Your task to perform on an android device: Set the phone to "Do not disturb". Image 0: 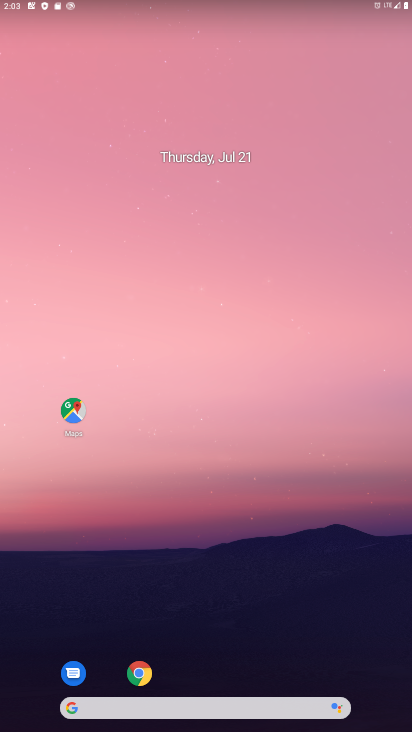
Step 0: drag from (165, 248) to (165, 348)
Your task to perform on an android device: Set the phone to "Do not disturb". Image 1: 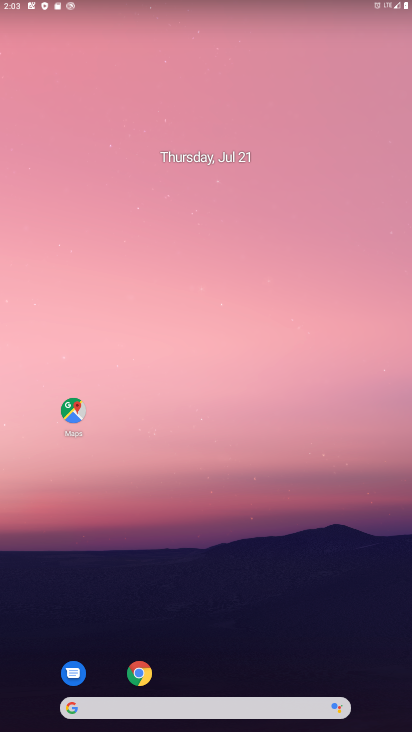
Step 1: drag from (156, 4) to (166, 447)
Your task to perform on an android device: Set the phone to "Do not disturb". Image 2: 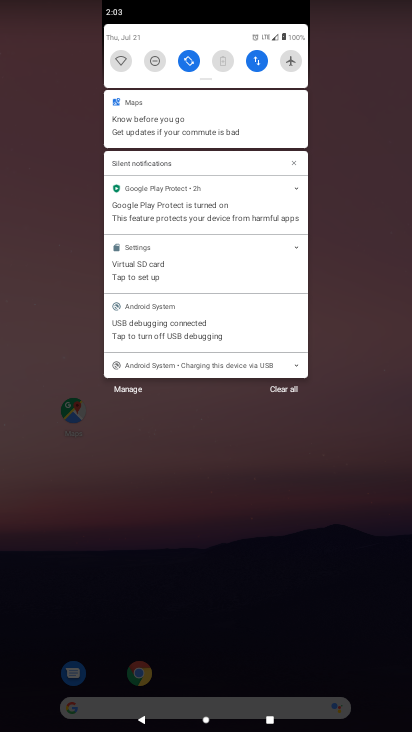
Step 2: click (153, 58)
Your task to perform on an android device: Set the phone to "Do not disturb". Image 3: 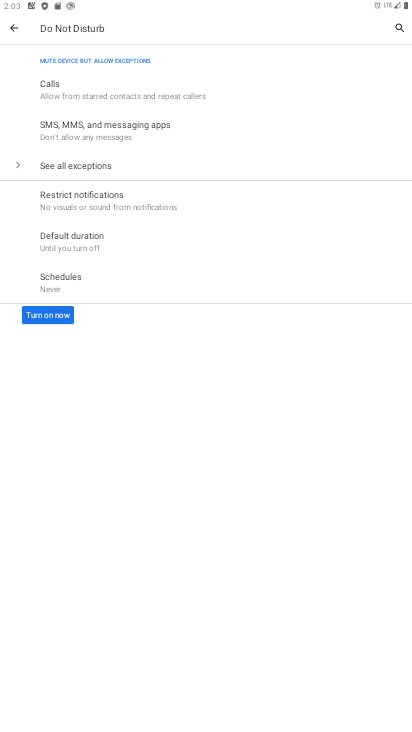
Step 3: click (47, 321)
Your task to perform on an android device: Set the phone to "Do not disturb". Image 4: 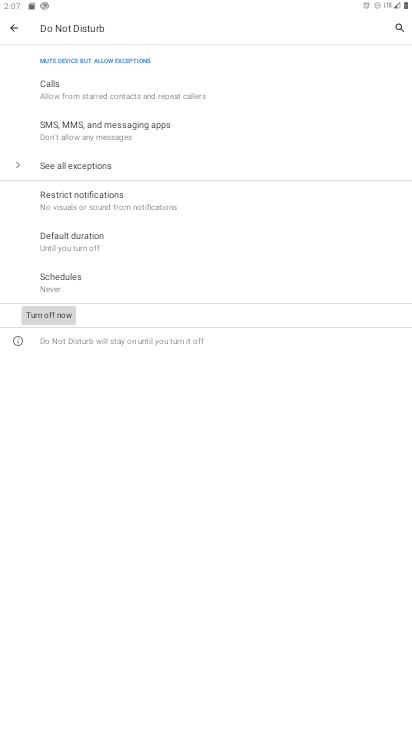
Step 4: task complete